Your task to perform on an android device: Is it going to rain tomorrow? Image 0: 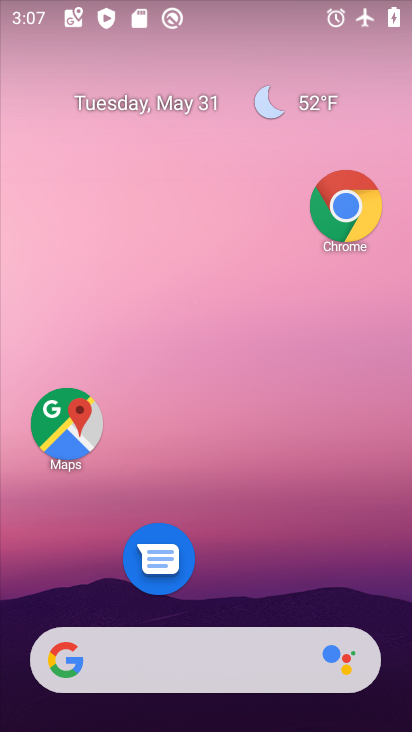
Step 0: drag from (298, 527) to (268, 112)
Your task to perform on an android device: Is it going to rain tomorrow? Image 1: 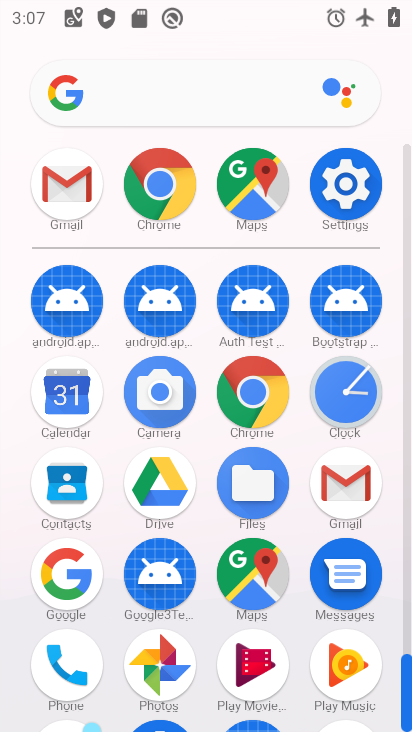
Step 1: drag from (196, 258) to (230, 60)
Your task to perform on an android device: Is it going to rain tomorrow? Image 2: 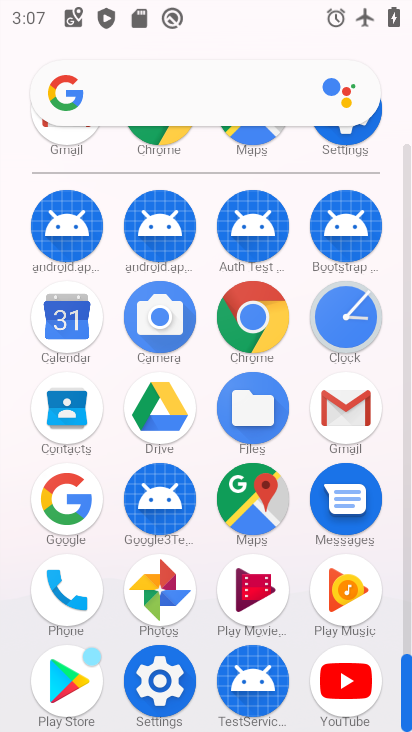
Step 2: click (155, 684)
Your task to perform on an android device: Is it going to rain tomorrow? Image 3: 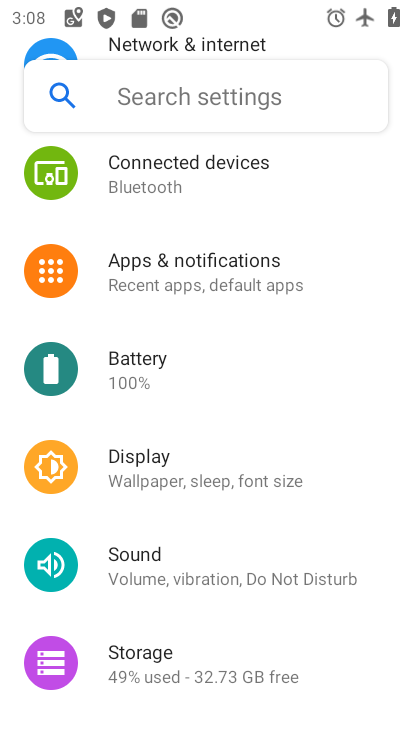
Step 3: press home button
Your task to perform on an android device: Is it going to rain tomorrow? Image 4: 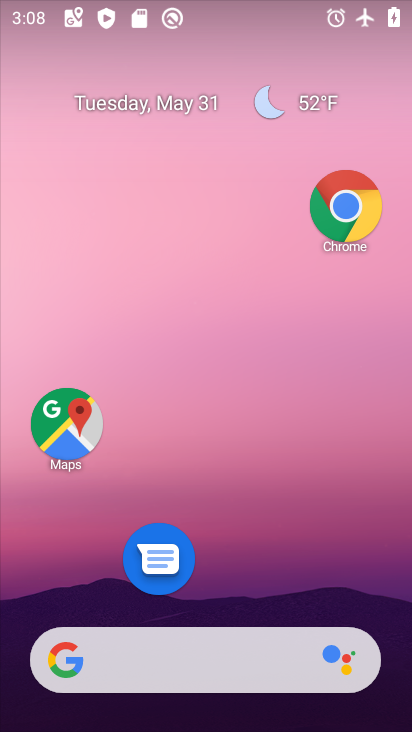
Step 4: drag from (265, 608) to (352, 475)
Your task to perform on an android device: Is it going to rain tomorrow? Image 5: 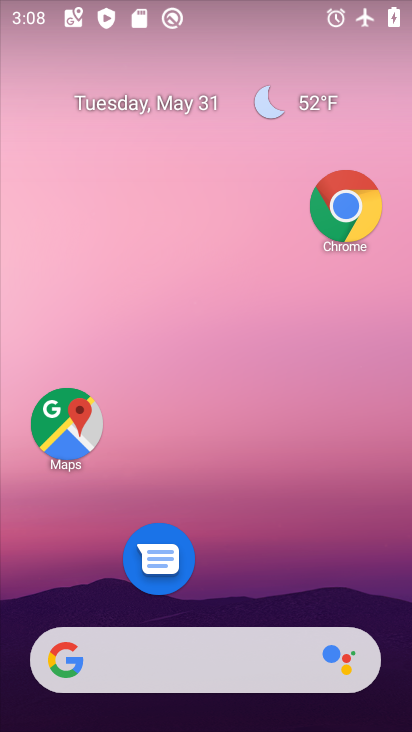
Step 5: drag from (258, 568) to (185, 122)
Your task to perform on an android device: Is it going to rain tomorrow? Image 6: 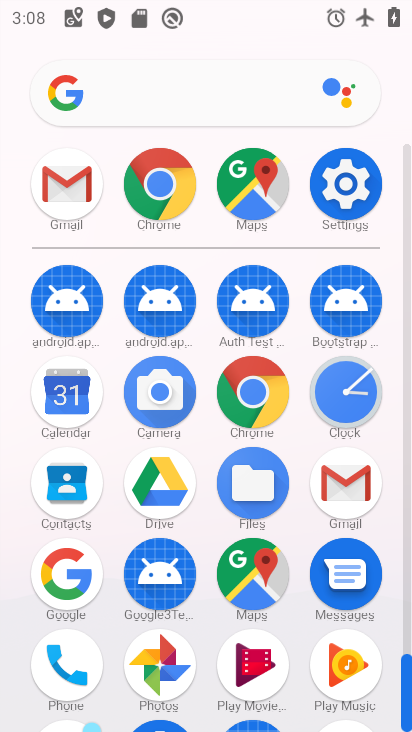
Step 6: click (61, 582)
Your task to perform on an android device: Is it going to rain tomorrow? Image 7: 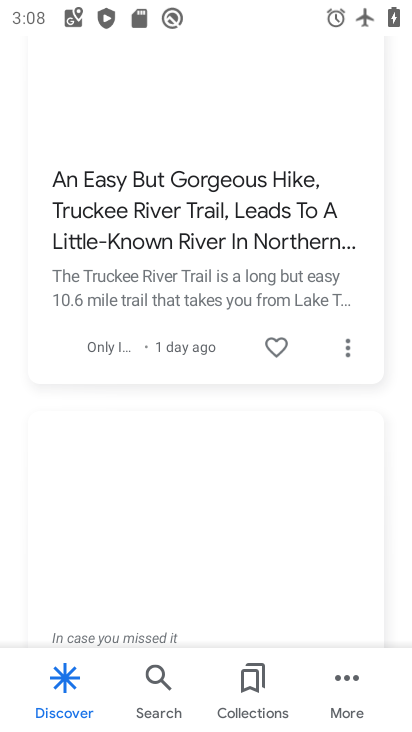
Step 7: drag from (247, 377) to (256, 651)
Your task to perform on an android device: Is it going to rain tomorrow? Image 8: 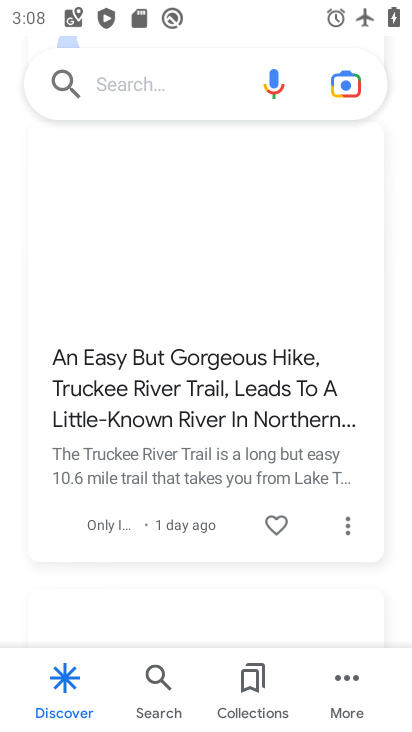
Step 8: drag from (257, 360) to (214, 672)
Your task to perform on an android device: Is it going to rain tomorrow? Image 9: 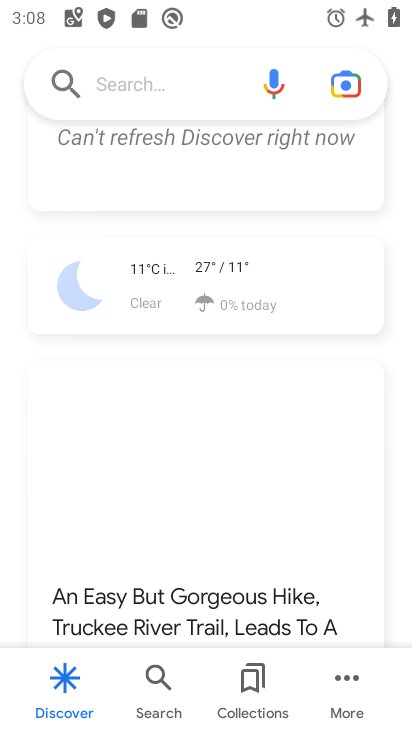
Step 9: click (279, 284)
Your task to perform on an android device: Is it going to rain tomorrow? Image 10: 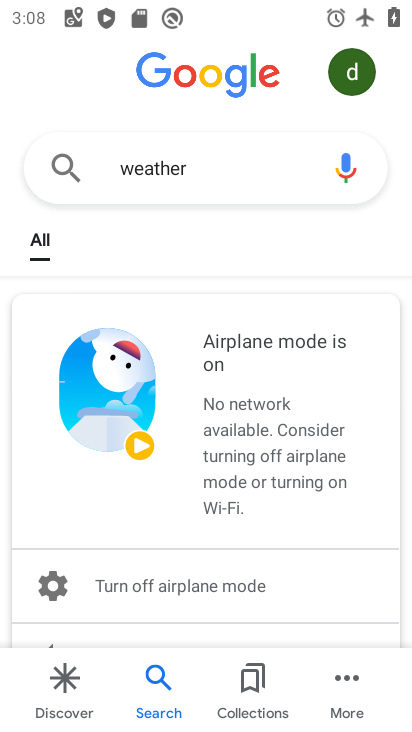
Step 10: task complete